Your task to perform on an android device: make emails show in primary in the gmail app Image 0: 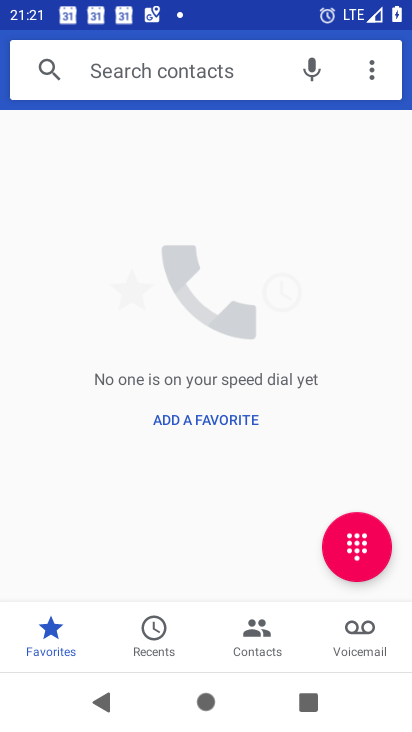
Step 0: press home button
Your task to perform on an android device: make emails show in primary in the gmail app Image 1: 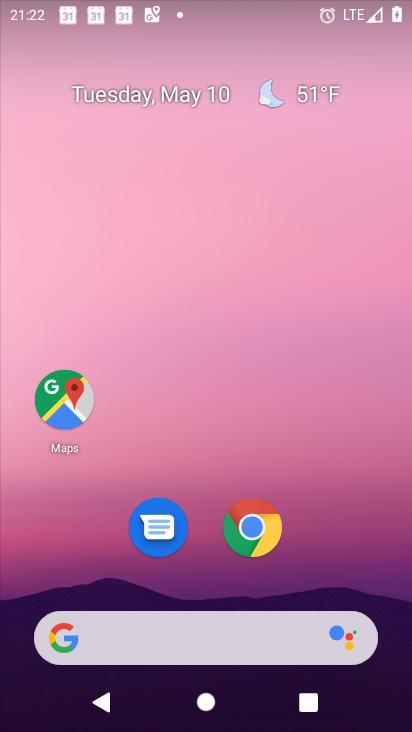
Step 1: drag from (241, 579) to (207, 4)
Your task to perform on an android device: make emails show in primary in the gmail app Image 2: 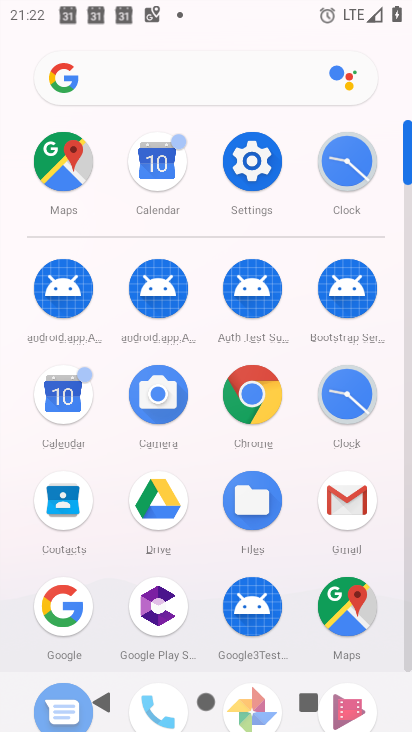
Step 2: click (351, 508)
Your task to perform on an android device: make emails show in primary in the gmail app Image 3: 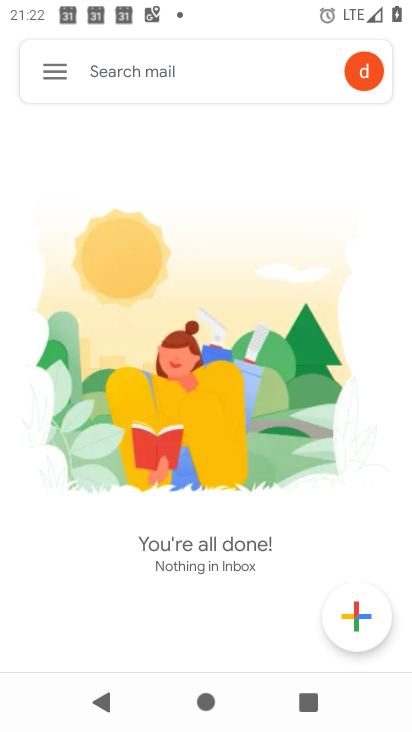
Step 3: click (47, 65)
Your task to perform on an android device: make emails show in primary in the gmail app Image 4: 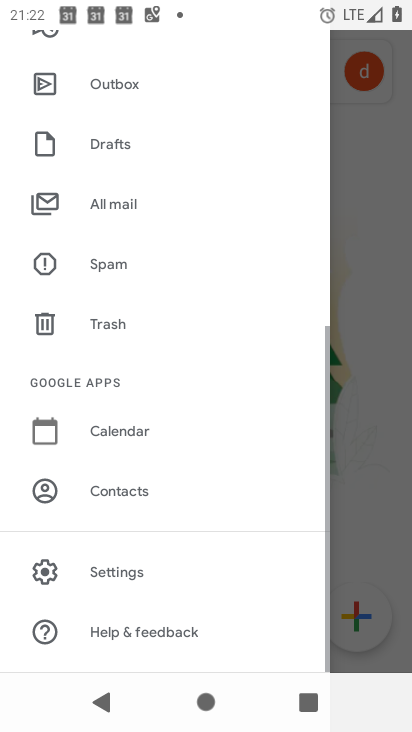
Step 4: drag from (85, 215) to (185, 648)
Your task to perform on an android device: make emails show in primary in the gmail app Image 5: 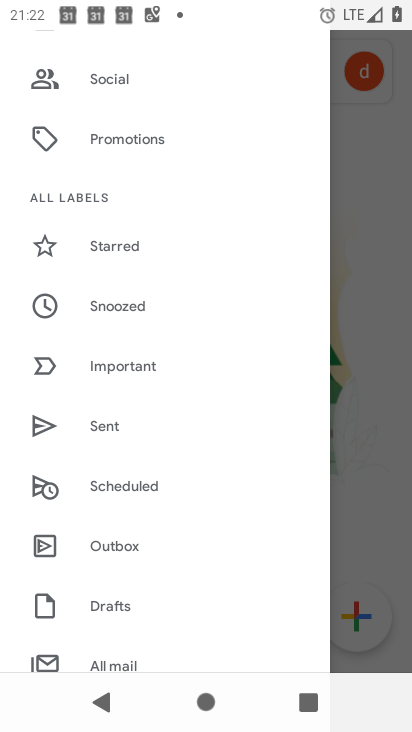
Step 5: drag from (133, 114) to (173, 418)
Your task to perform on an android device: make emails show in primary in the gmail app Image 6: 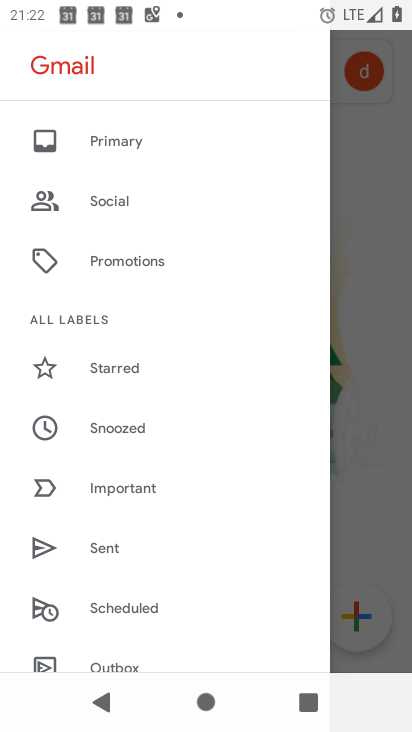
Step 6: click (107, 140)
Your task to perform on an android device: make emails show in primary in the gmail app Image 7: 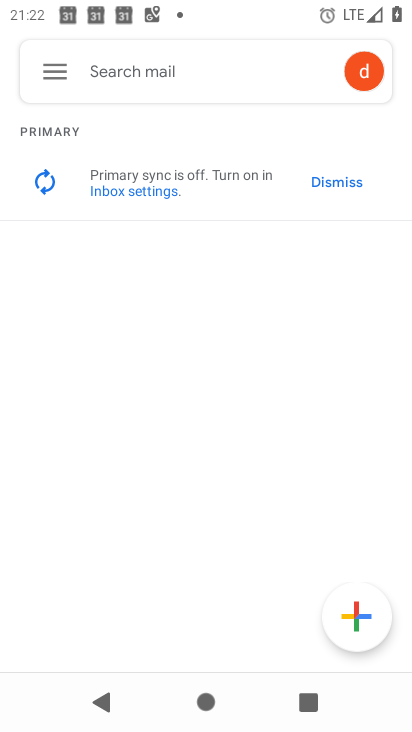
Step 7: task complete